Your task to perform on an android device: Search for Italian restaurants on Maps Image 0: 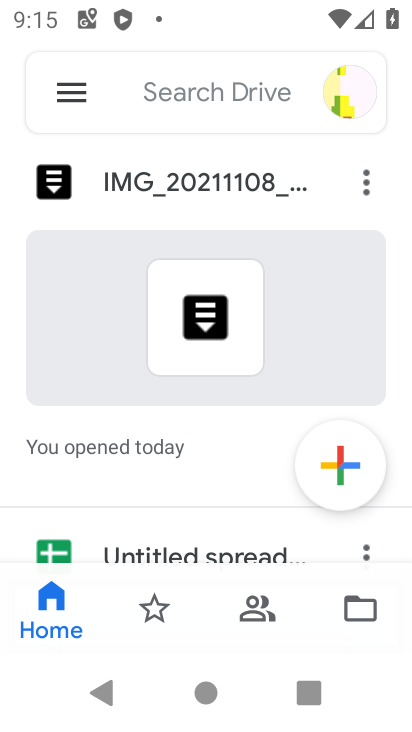
Step 0: press home button
Your task to perform on an android device: Search for Italian restaurants on Maps Image 1: 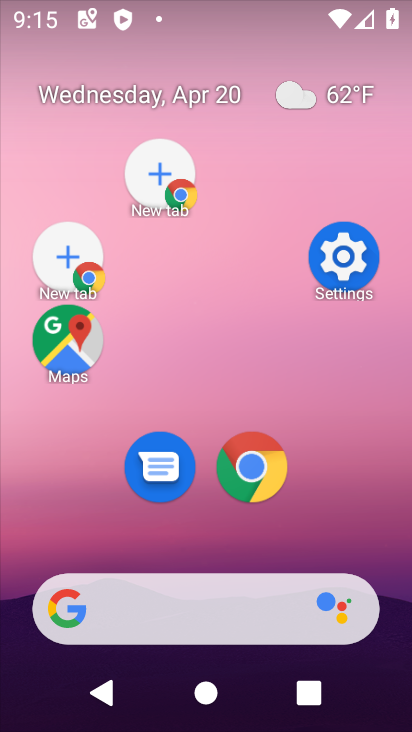
Step 1: drag from (261, 713) to (156, 82)
Your task to perform on an android device: Search for Italian restaurants on Maps Image 2: 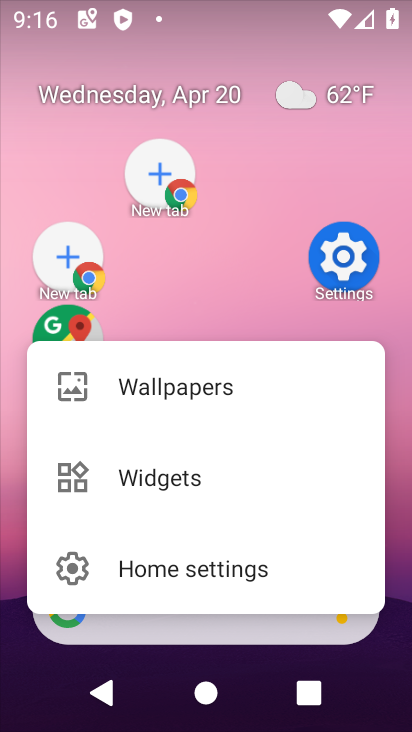
Step 2: drag from (286, 311) to (171, 2)
Your task to perform on an android device: Search for Italian restaurants on Maps Image 3: 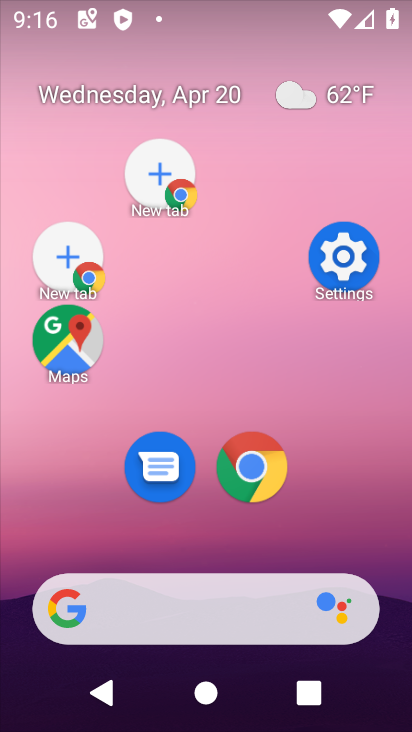
Step 3: drag from (213, 198) to (158, 16)
Your task to perform on an android device: Search for Italian restaurants on Maps Image 4: 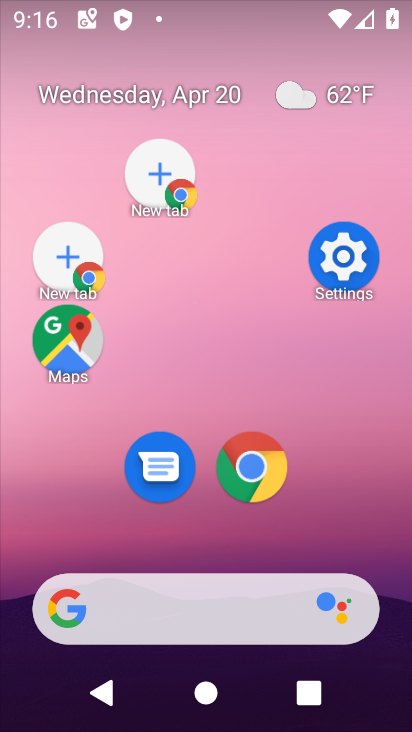
Step 4: drag from (177, 137) to (174, 15)
Your task to perform on an android device: Search for Italian restaurants on Maps Image 5: 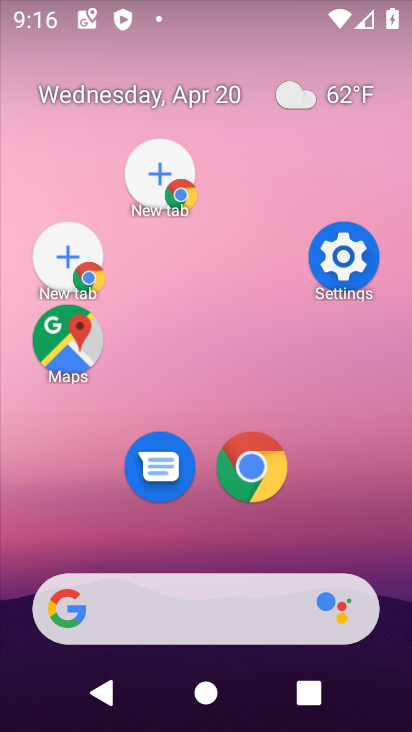
Step 5: drag from (302, 497) to (175, 108)
Your task to perform on an android device: Search for Italian restaurants on Maps Image 6: 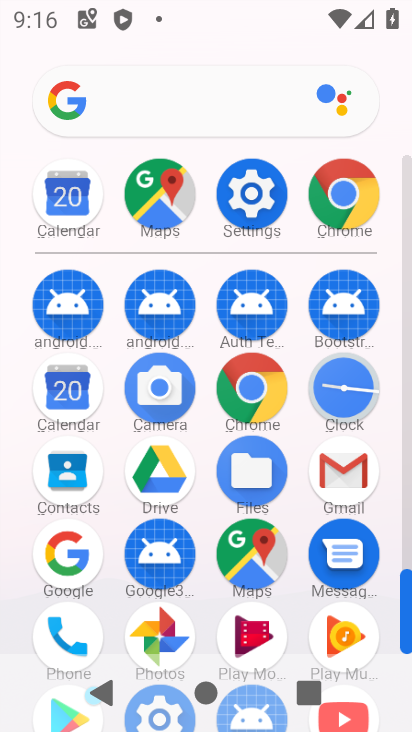
Step 6: drag from (228, 367) to (131, 180)
Your task to perform on an android device: Search for Italian restaurants on Maps Image 7: 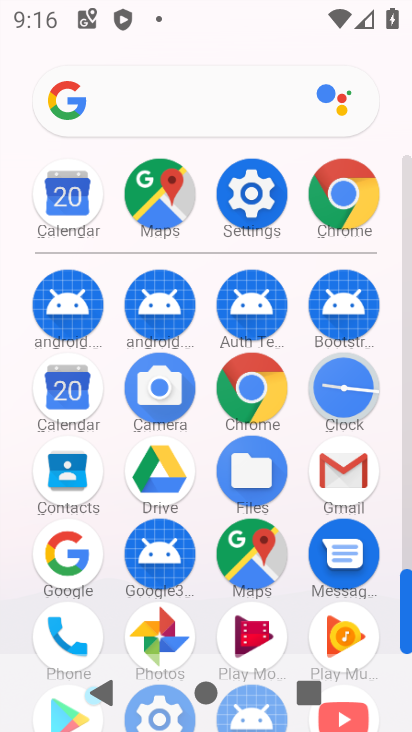
Step 7: click (241, 562)
Your task to perform on an android device: Search for Italian restaurants on Maps Image 8: 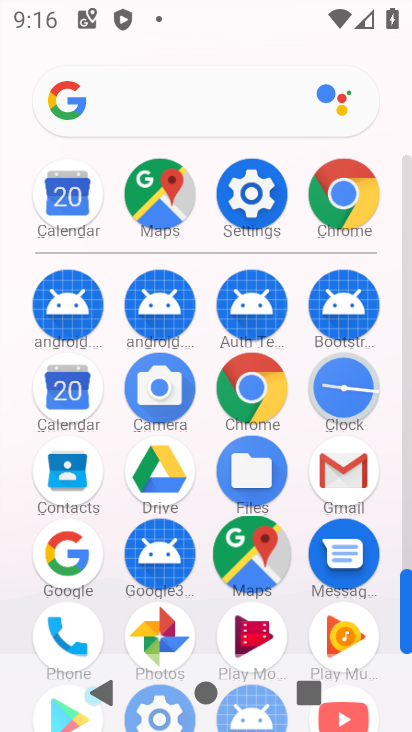
Step 8: click (244, 561)
Your task to perform on an android device: Search for Italian restaurants on Maps Image 9: 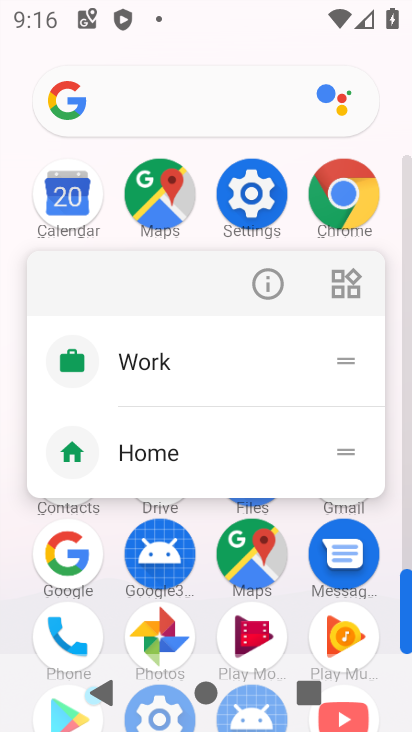
Step 9: click (246, 555)
Your task to perform on an android device: Search for Italian restaurants on Maps Image 10: 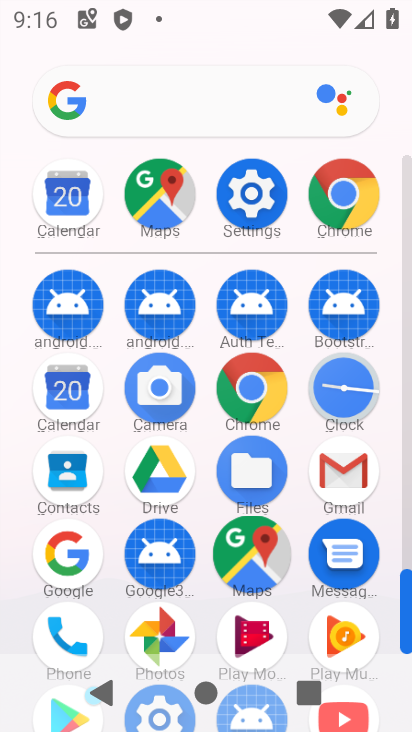
Step 10: click (247, 551)
Your task to perform on an android device: Search for Italian restaurants on Maps Image 11: 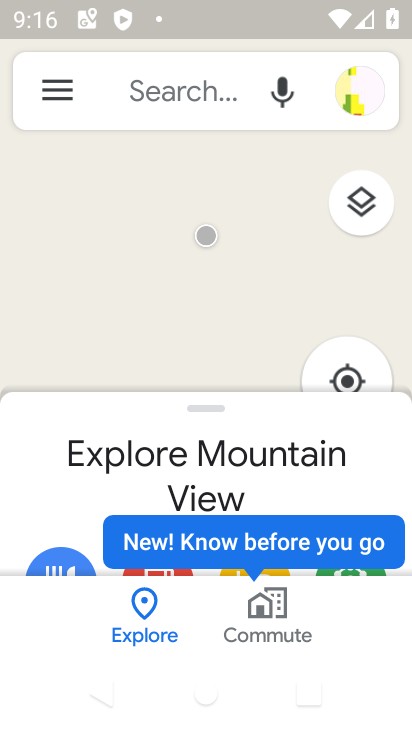
Step 11: click (167, 90)
Your task to perform on an android device: Search for Italian restaurants on Maps Image 12: 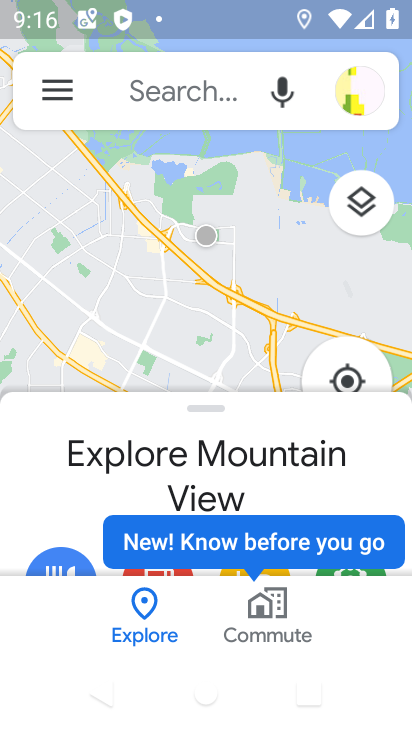
Step 12: click (167, 90)
Your task to perform on an android device: Search for Italian restaurants on Maps Image 13: 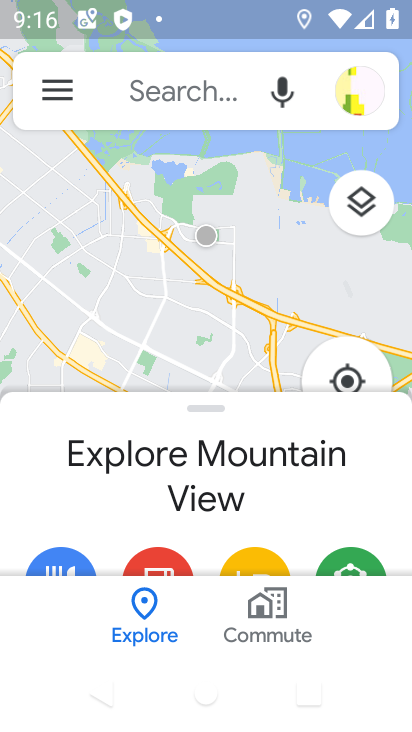
Step 13: click (166, 89)
Your task to perform on an android device: Search for Italian restaurants on Maps Image 14: 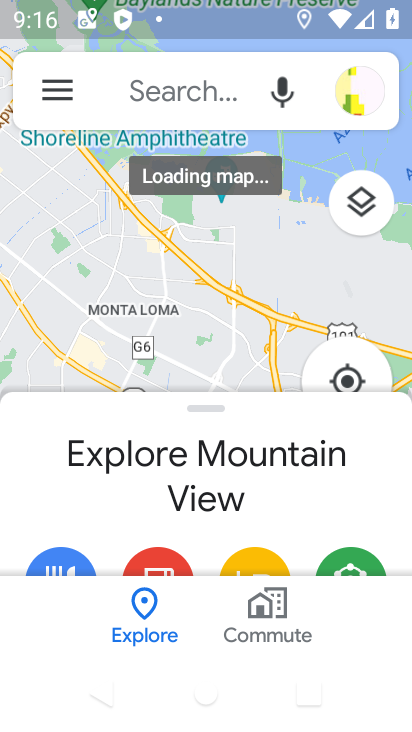
Step 14: click (144, 91)
Your task to perform on an android device: Search for Italian restaurants on Maps Image 15: 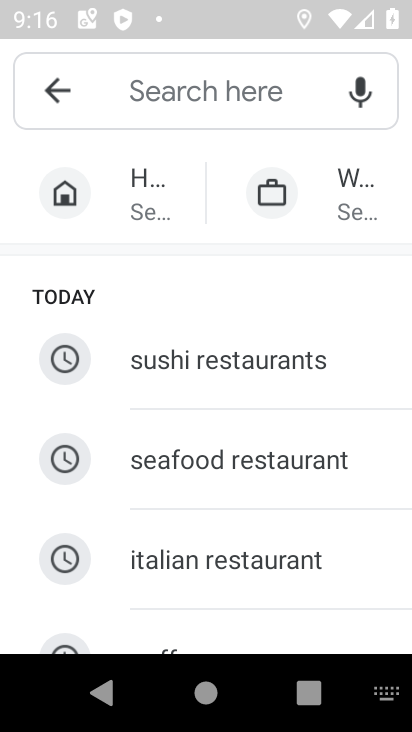
Step 15: click (202, 556)
Your task to perform on an android device: Search for Italian restaurants on Maps Image 16: 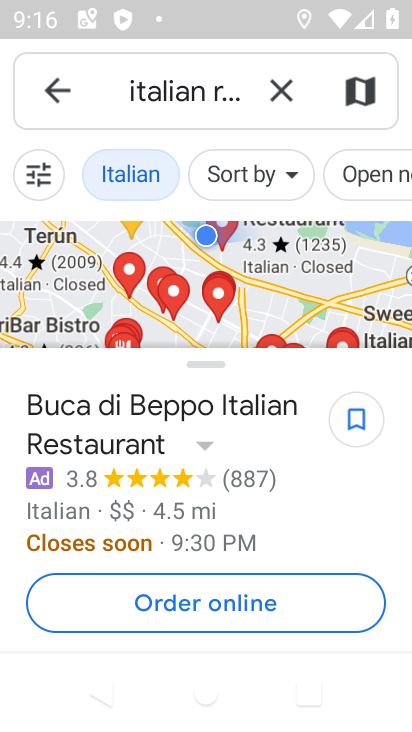
Step 16: task complete